Your task to perform on an android device: Open the Play Movies app and select the watchlist tab. Image 0: 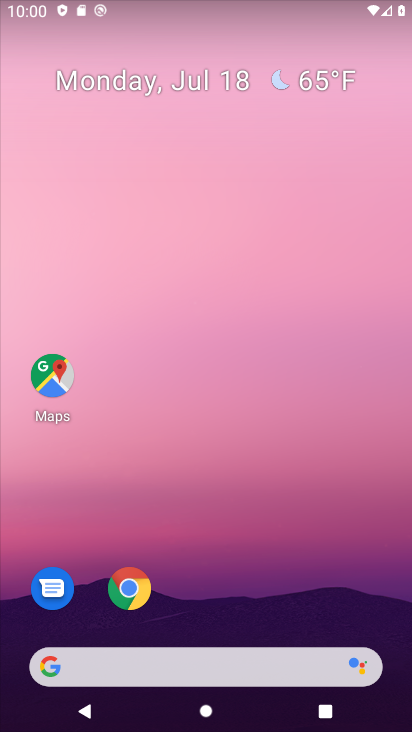
Step 0: drag from (246, 591) to (238, 103)
Your task to perform on an android device: Open the Play Movies app and select the watchlist tab. Image 1: 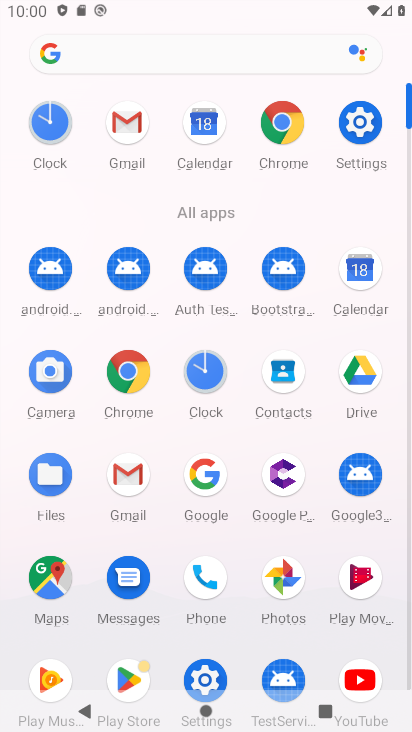
Step 1: click (364, 572)
Your task to perform on an android device: Open the Play Movies app and select the watchlist tab. Image 2: 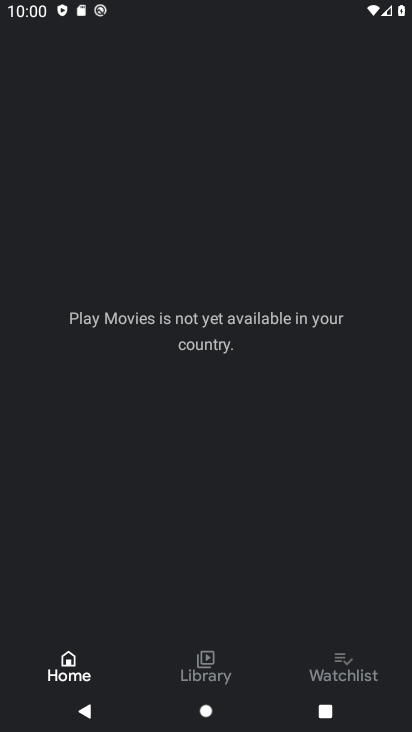
Step 2: click (344, 666)
Your task to perform on an android device: Open the Play Movies app and select the watchlist tab. Image 3: 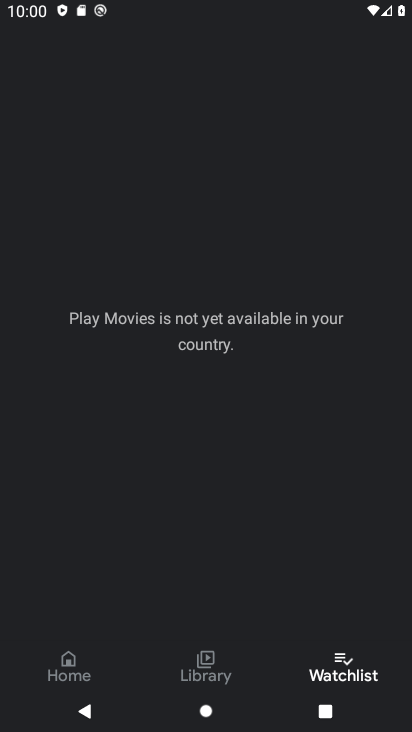
Step 3: task complete